Your task to perform on an android device: turn on bluetooth scan Image 0: 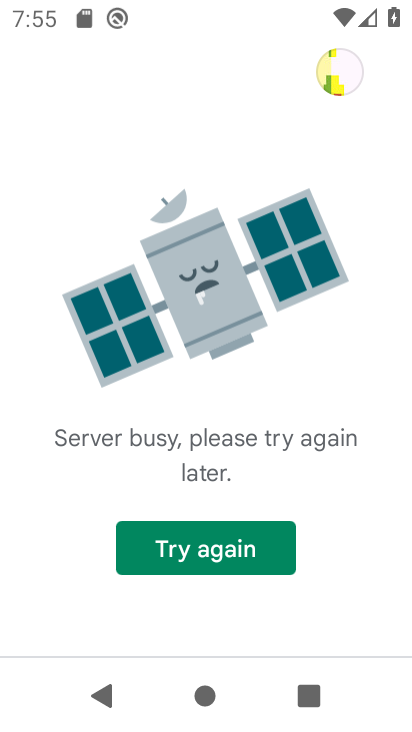
Step 0: press home button
Your task to perform on an android device: turn on bluetooth scan Image 1: 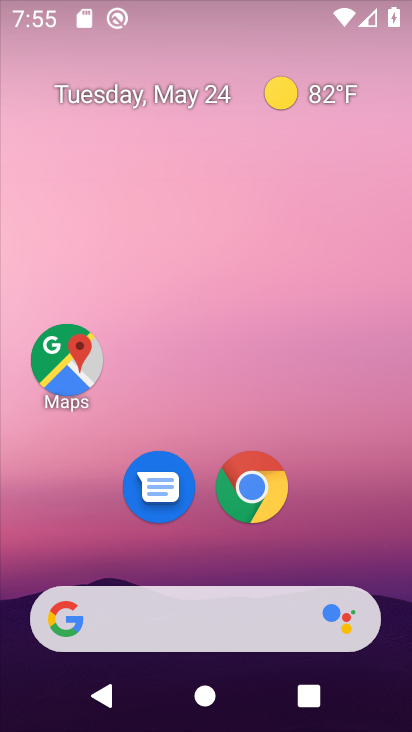
Step 1: drag from (365, 547) to (387, 120)
Your task to perform on an android device: turn on bluetooth scan Image 2: 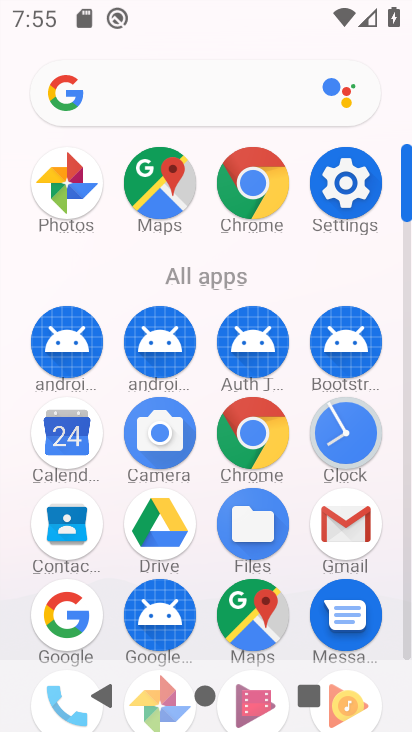
Step 2: click (351, 164)
Your task to perform on an android device: turn on bluetooth scan Image 3: 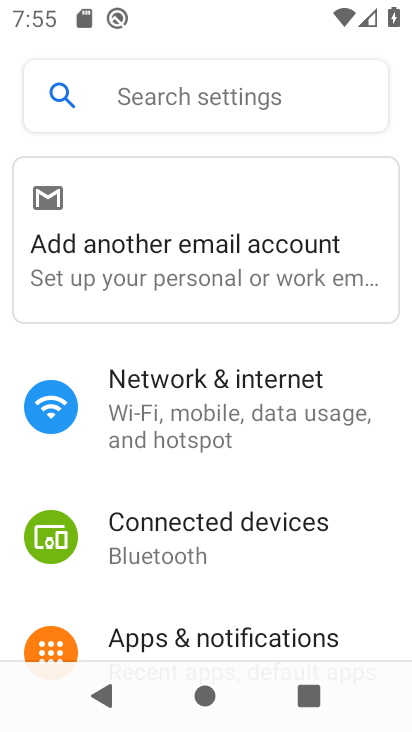
Step 3: drag from (274, 553) to (285, 135)
Your task to perform on an android device: turn on bluetooth scan Image 4: 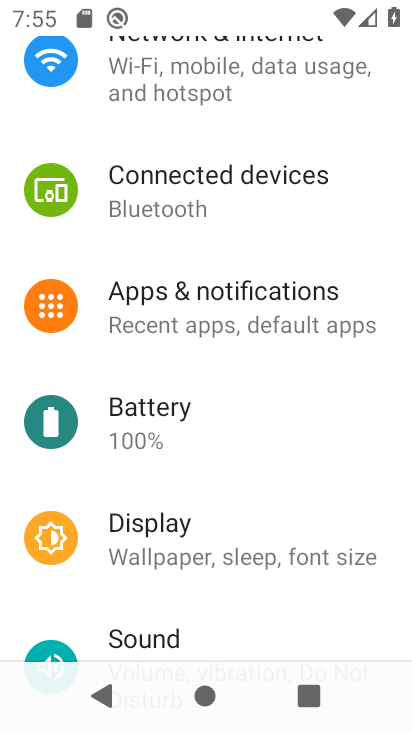
Step 4: drag from (248, 573) to (252, 231)
Your task to perform on an android device: turn on bluetooth scan Image 5: 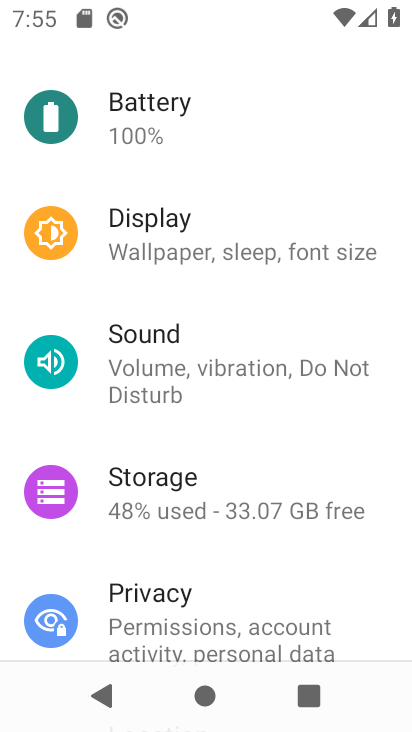
Step 5: drag from (191, 549) to (265, 200)
Your task to perform on an android device: turn on bluetooth scan Image 6: 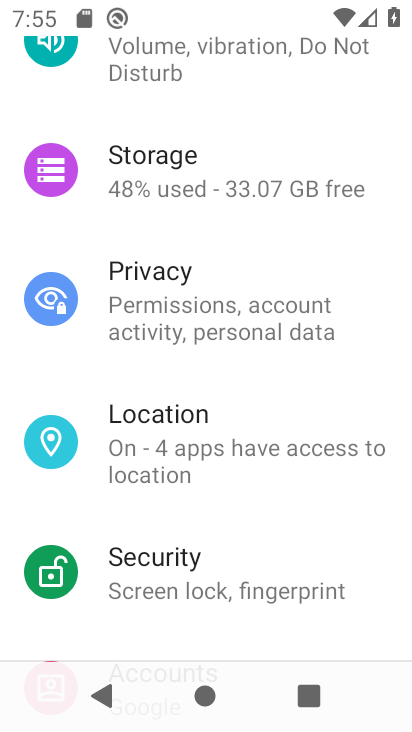
Step 6: click (216, 460)
Your task to perform on an android device: turn on bluetooth scan Image 7: 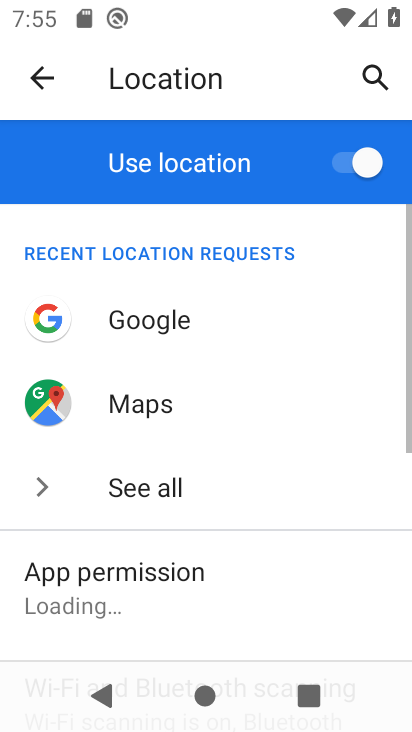
Step 7: drag from (244, 558) to (250, 189)
Your task to perform on an android device: turn on bluetooth scan Image 8: 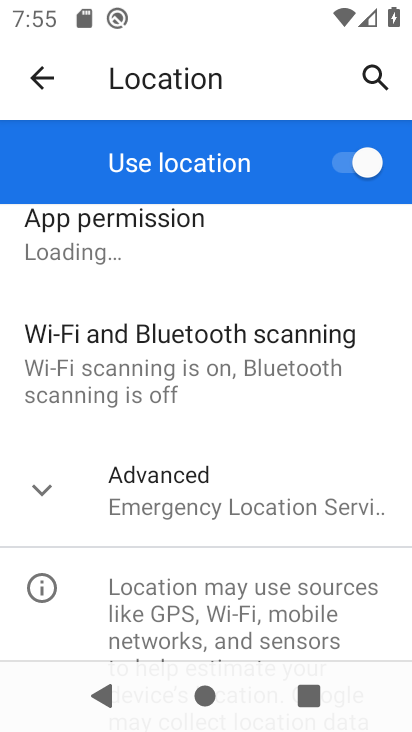
Step 8: click (196, 380)
Your task to perform on an android device: turn on bluetooth scan Image 9: 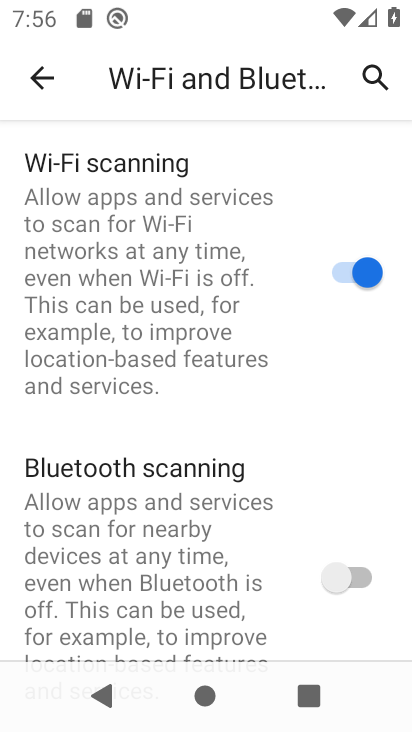
Step 9: click (364, 586)
Your task to perform on an android device: turn on bluetooth scan Image 10: 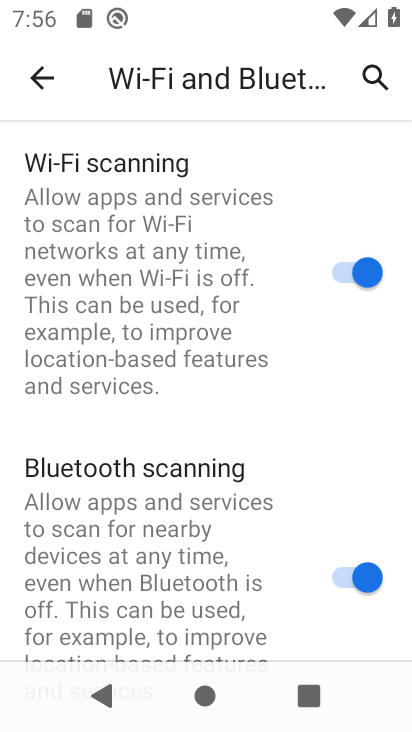
Step 10: task complete